Your task to perform on an android device: open app "Calculator" (install if not already installed) Image 0: 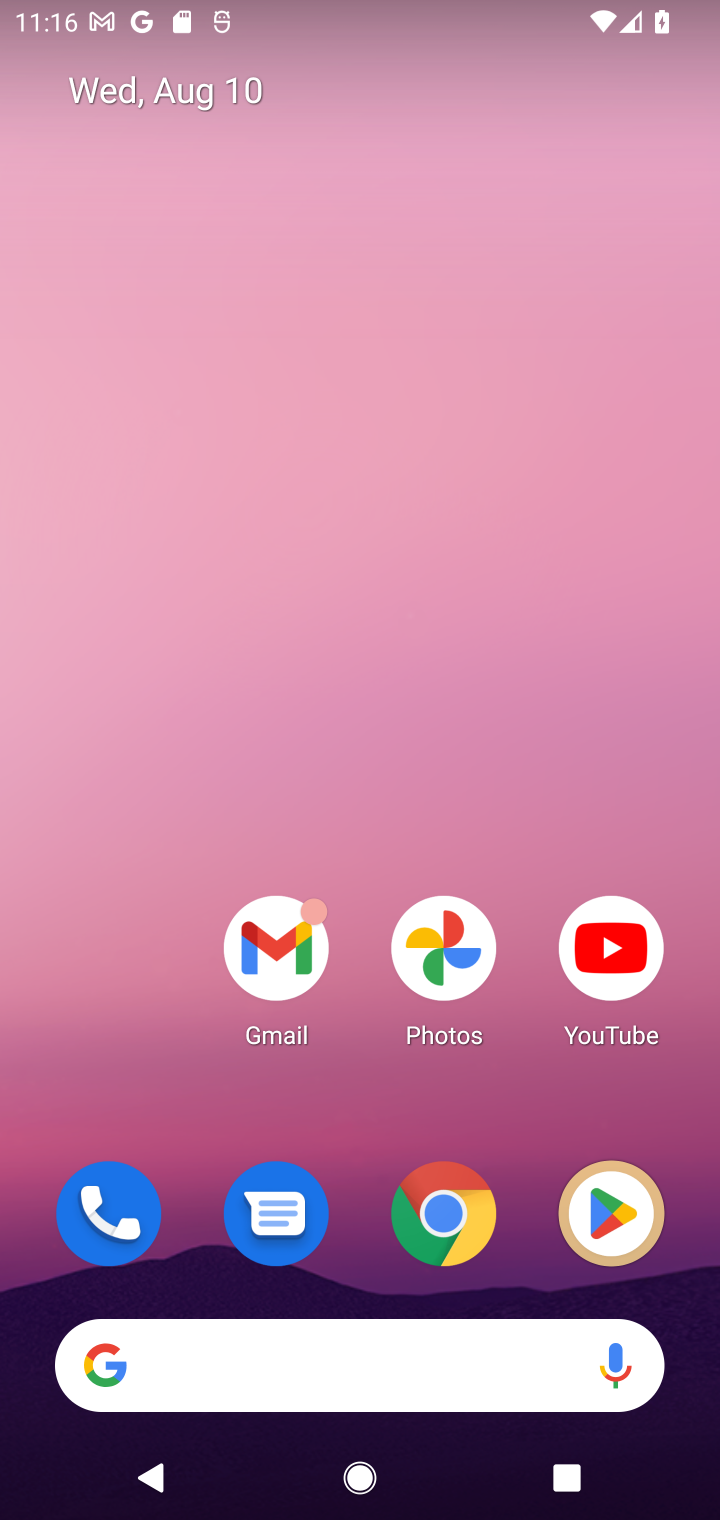
Step 0: drag from (302, 1375) to (555, 224)
Your task to perform on an android device: open app "Calculator" (install if not already installed) Image 1: 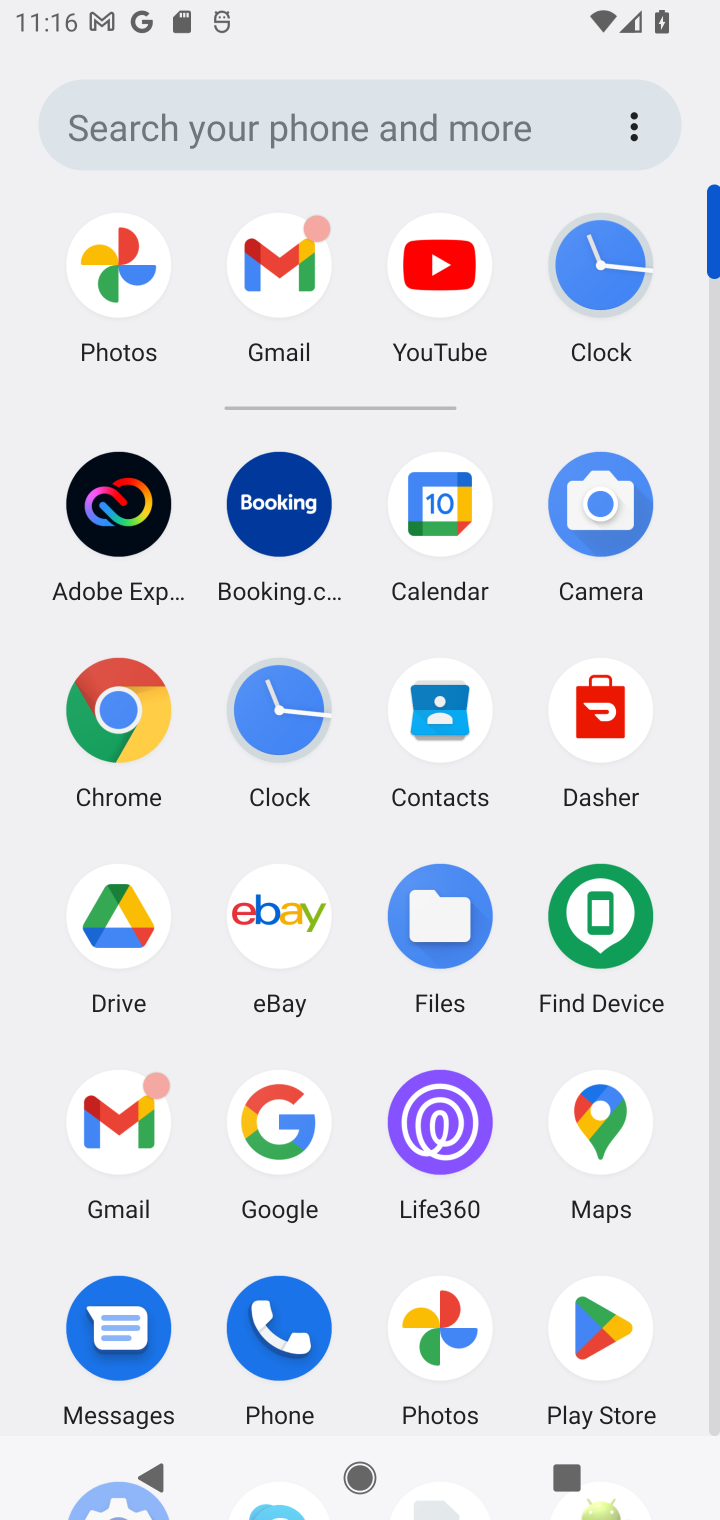
Step 1: click (603, 1333)
Your task to perform on an android device: open app "Calculator" (install if not already installed) Image 2: 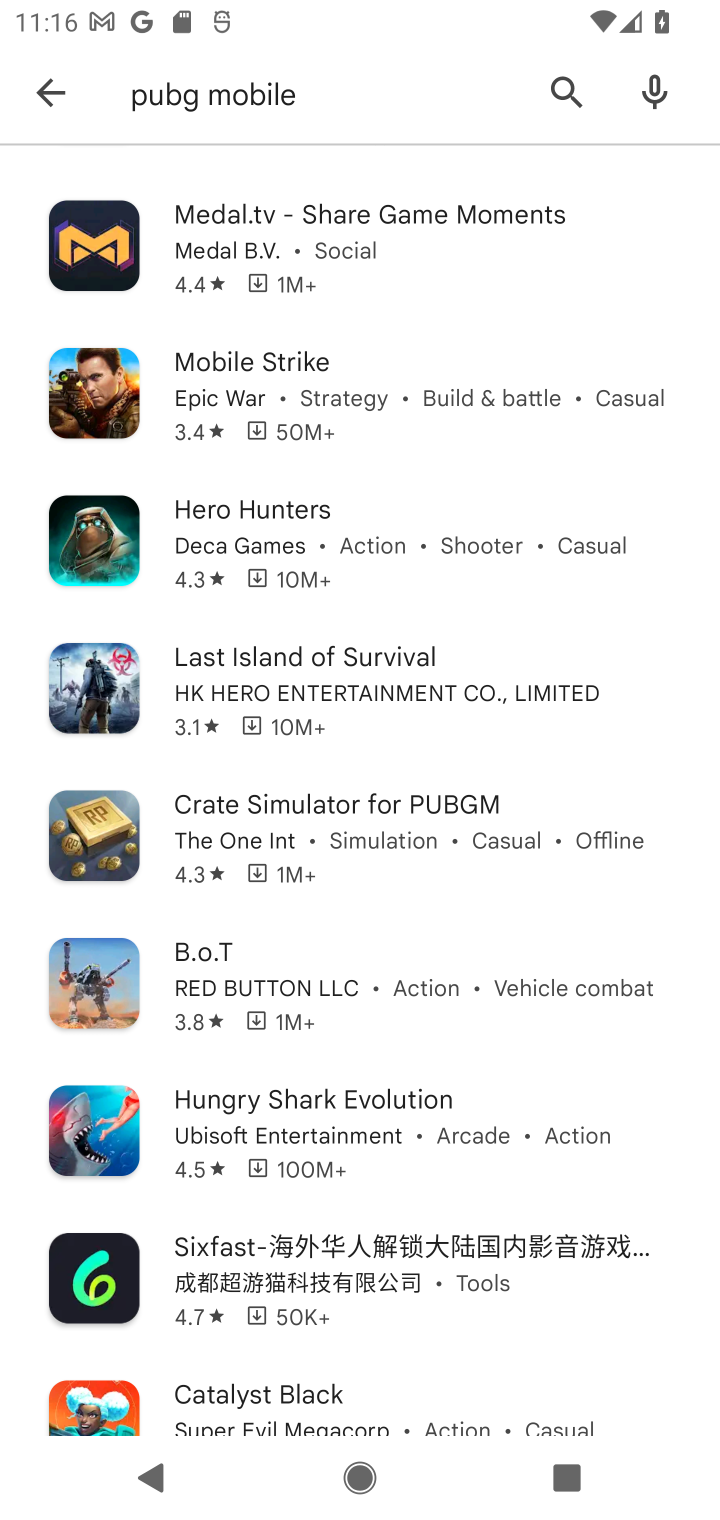
Step 2: press back button
Your task to perform on an android device: open app "Calculator" (install if not already installed) Image 3: 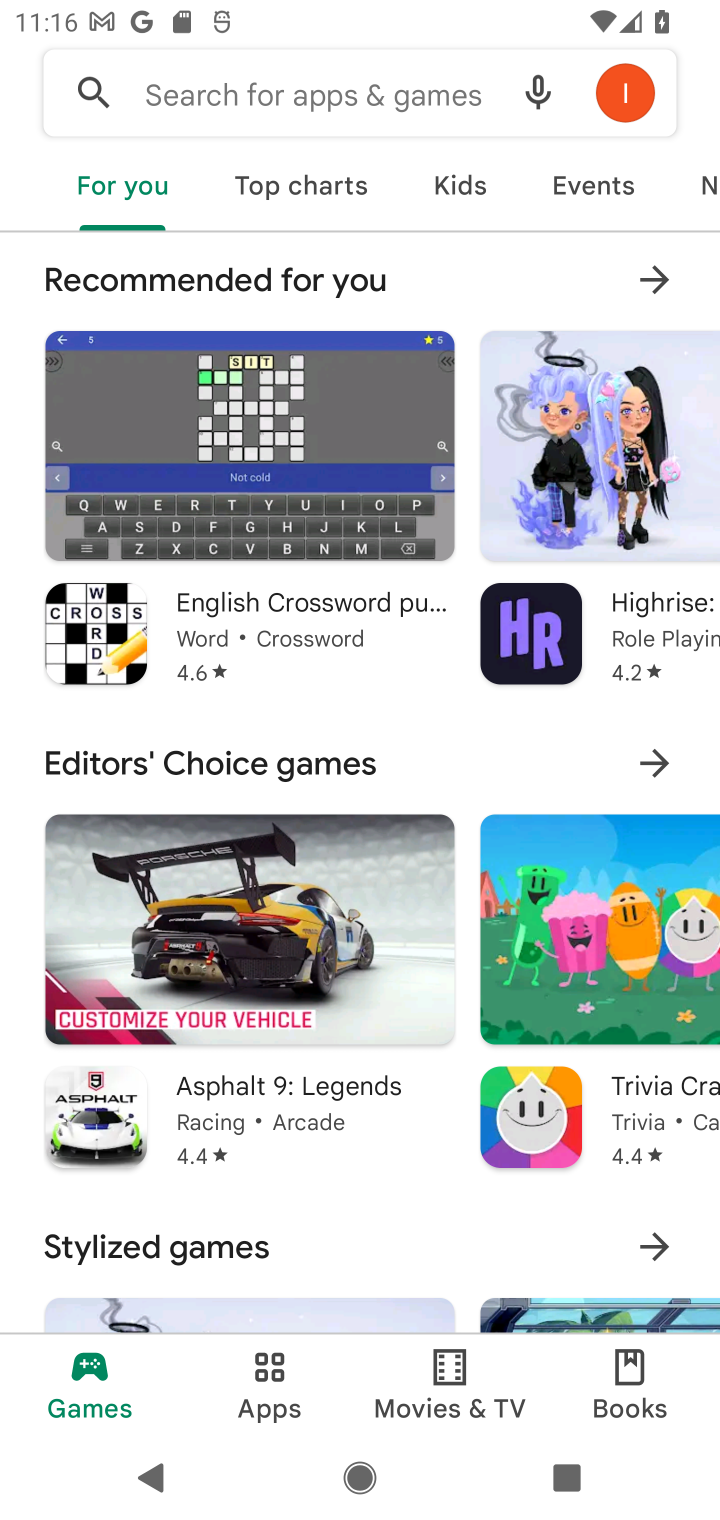
Step 3: click (230, 99)
Your task to perform on an android device: open app "Calculator" (install if not already installed) Image 4: 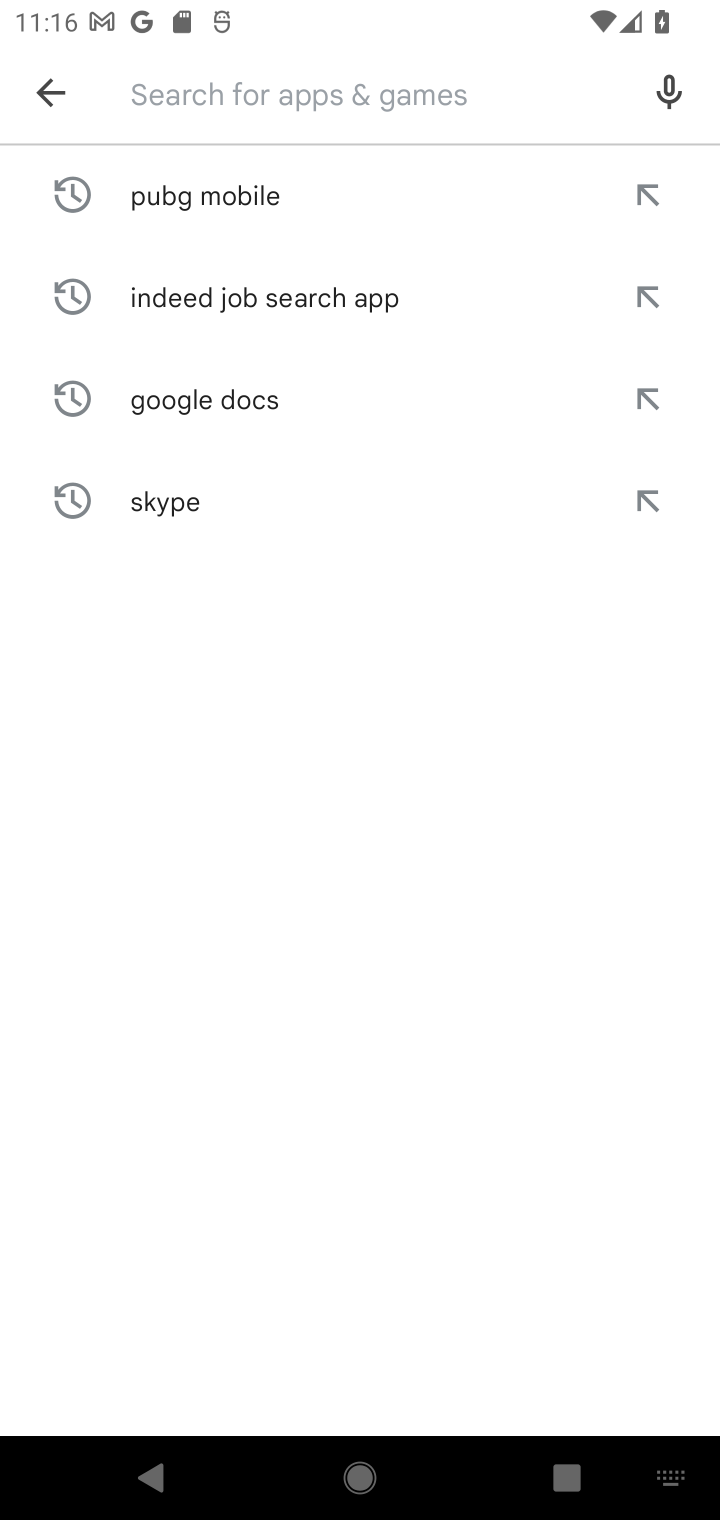
Step 4: type "Calculator"
Your task to perform on an android device: open app "Calculator" (install if not already installed) Image 5: 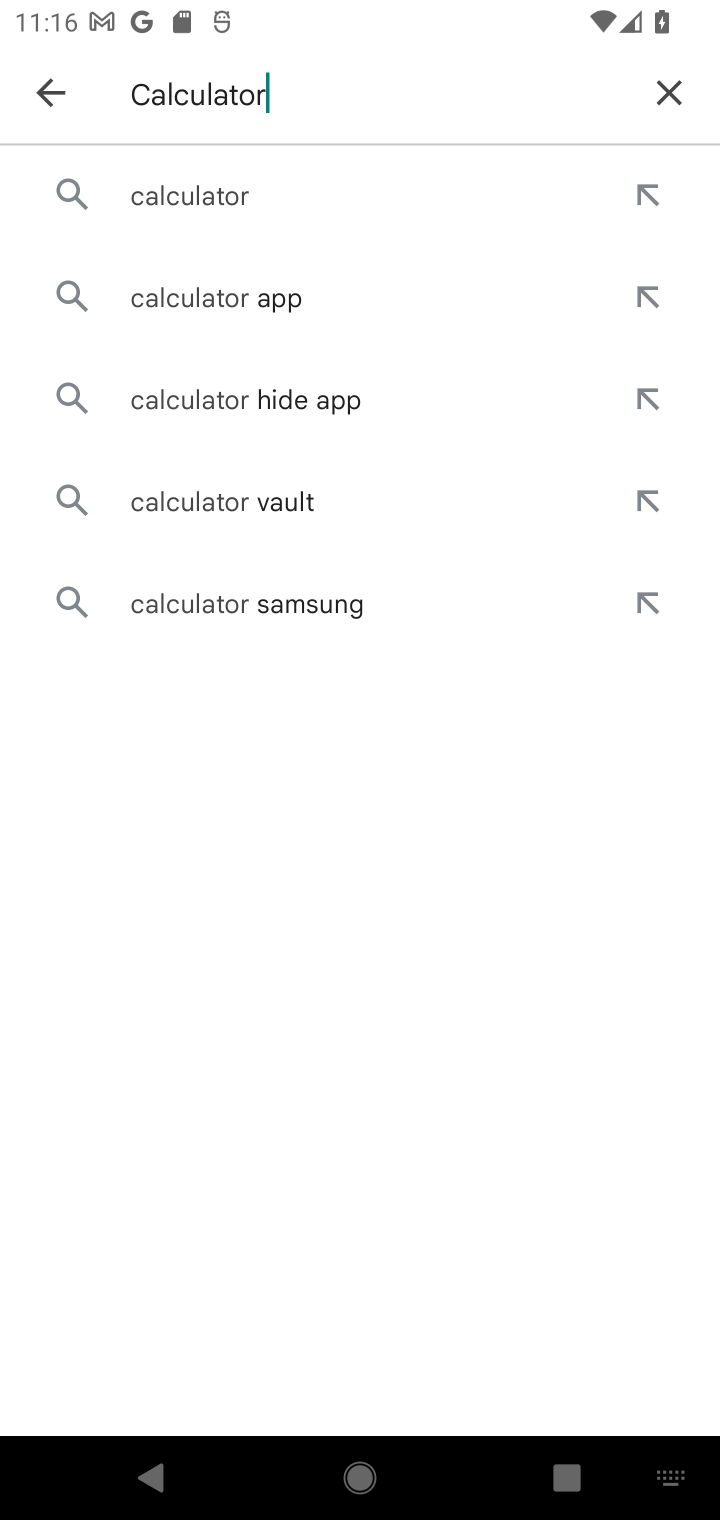
Step 5: click (175, 191)
Your task to perform on an android device: open app "Calculator" (install if not already installed) Image 6: 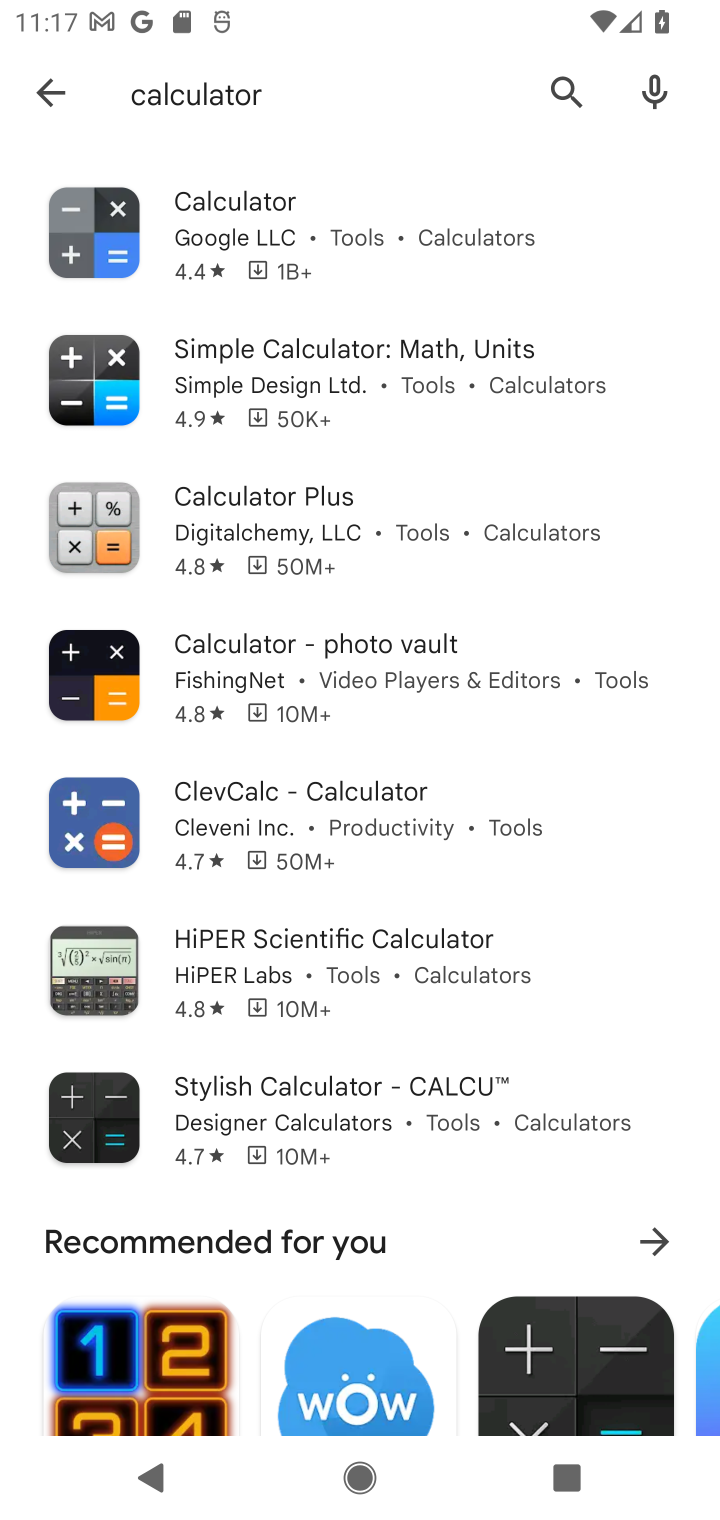
Step 6: click (205, 230)
Your task to perform on an android device: open app "Calculator" (install if not already installed) Image 7: 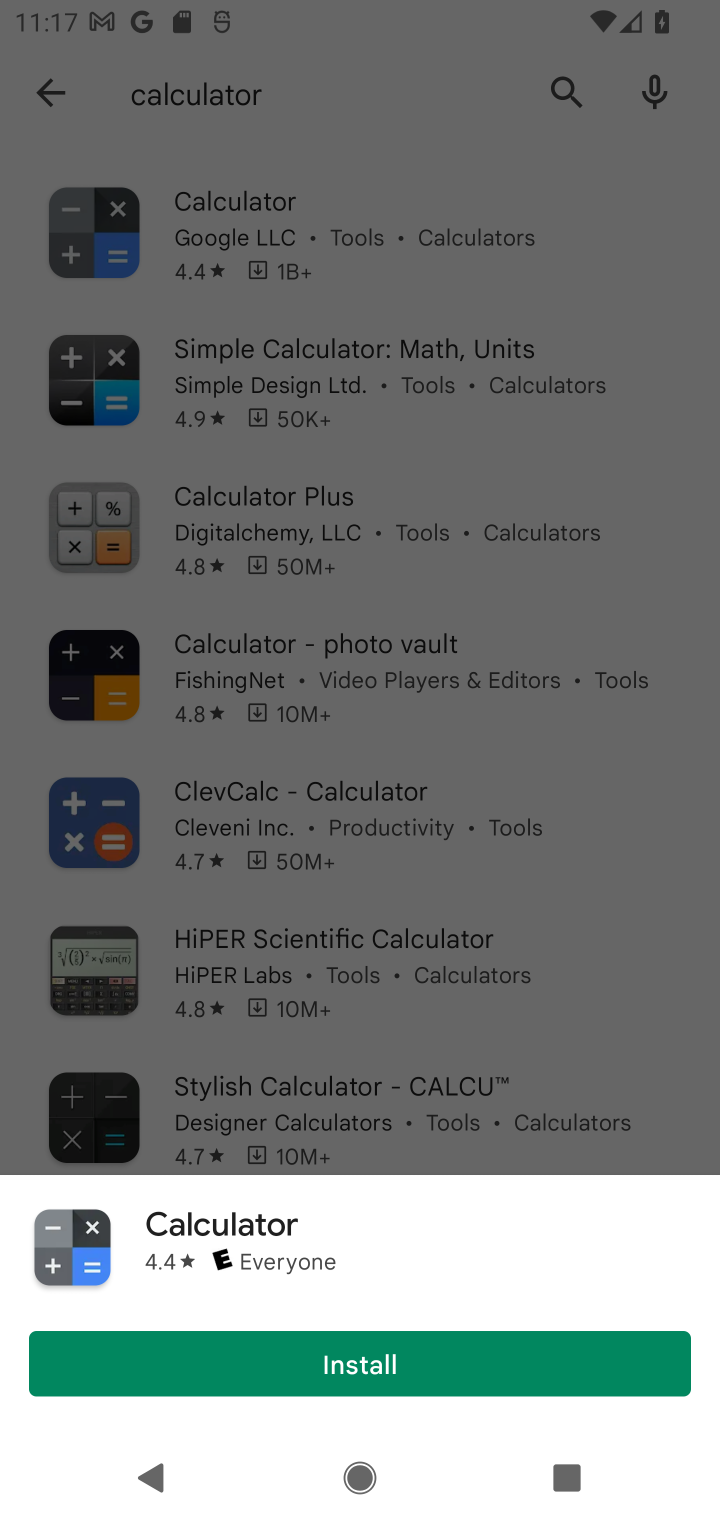
Step 7: click (347, 1354)
Your task to perform on an android device: open app "Calculator" (install if not already installed) Image 8: 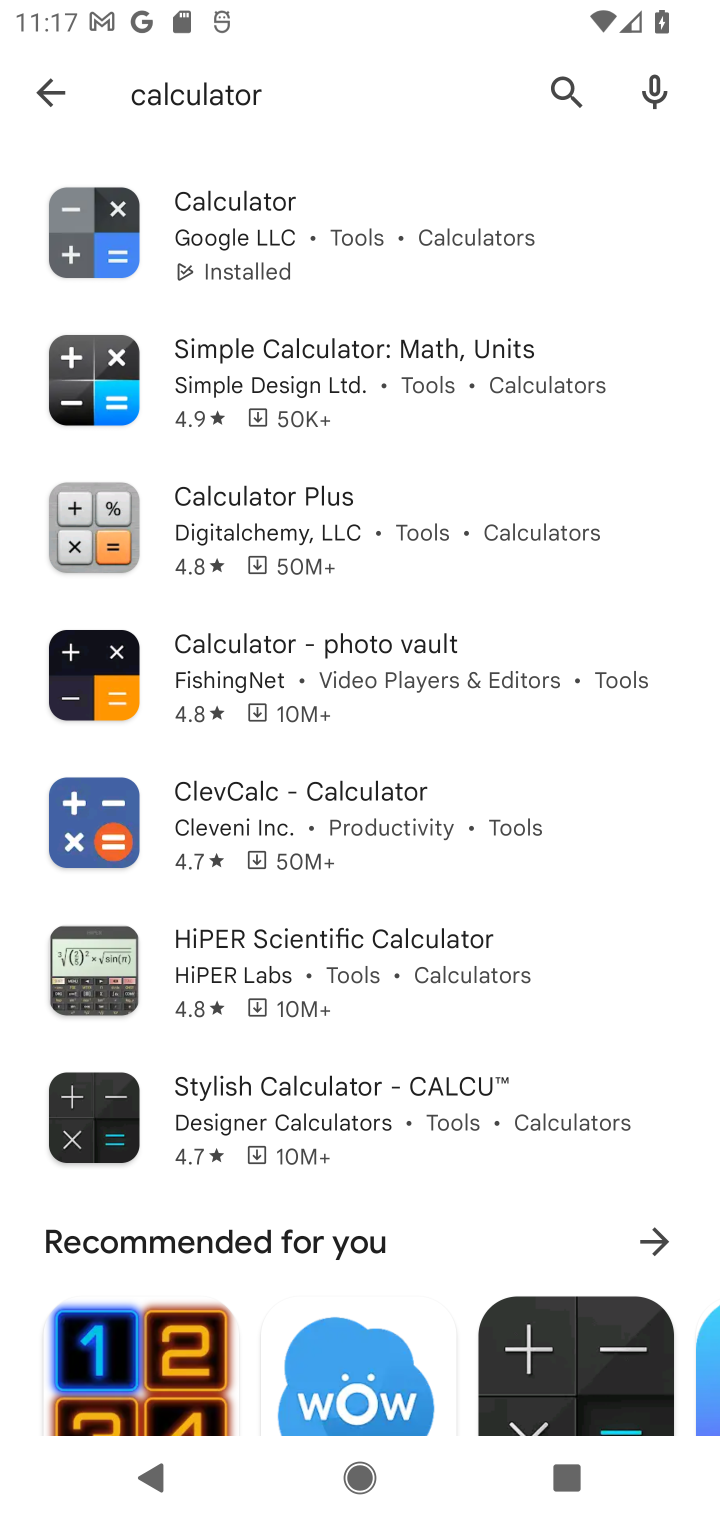
Step 8: task complete